Your task to perform on an android device: toggle wifi Image 0: 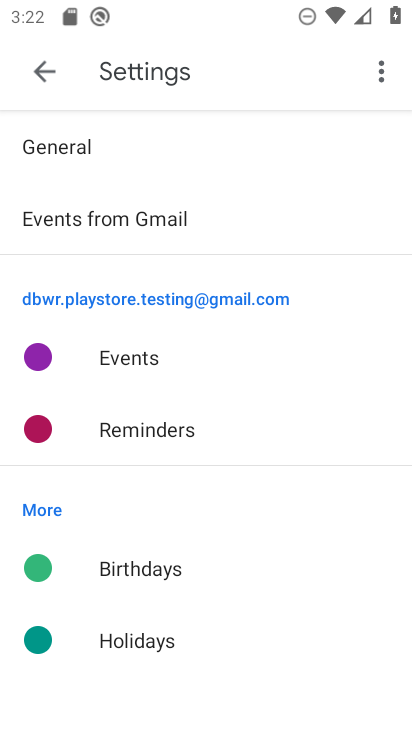
Step 0: press home button
Your task to perform on an android device: toggle wifi Image 1: 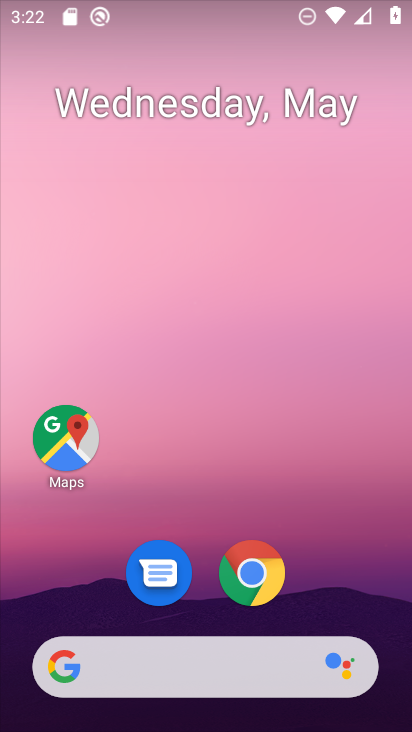
Step 1: drag from (309, 588) to (312, 1)
Your task to perform on an android device: toggle wifi Image 2: 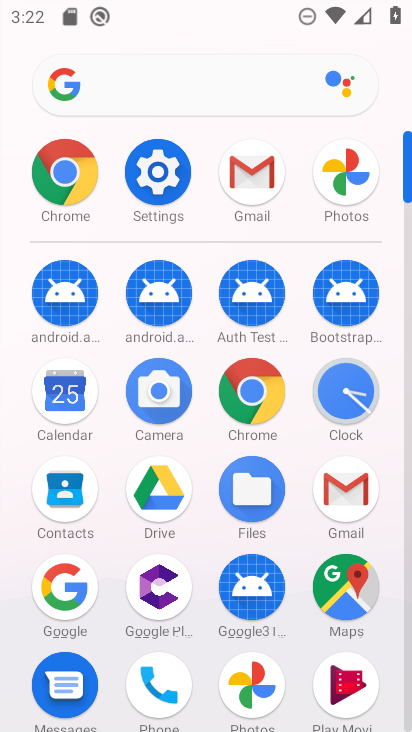
Step 2: click (146, 173)
Your task to perform on an android device: toggle wifi Image 3: 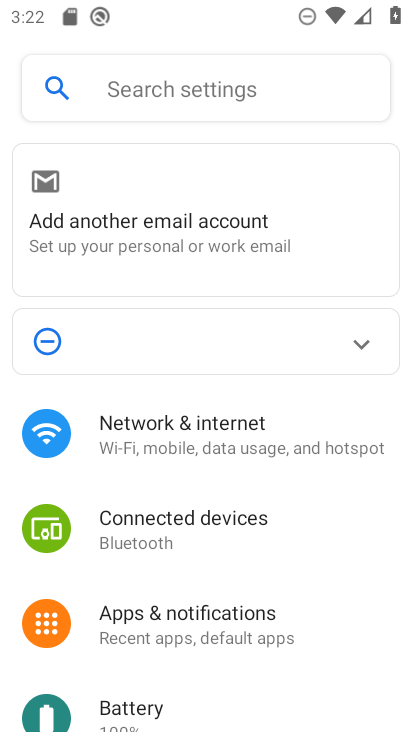
Step 3: click (156, 437)
Your task to perform on an android device: toggle wifi Image 4: 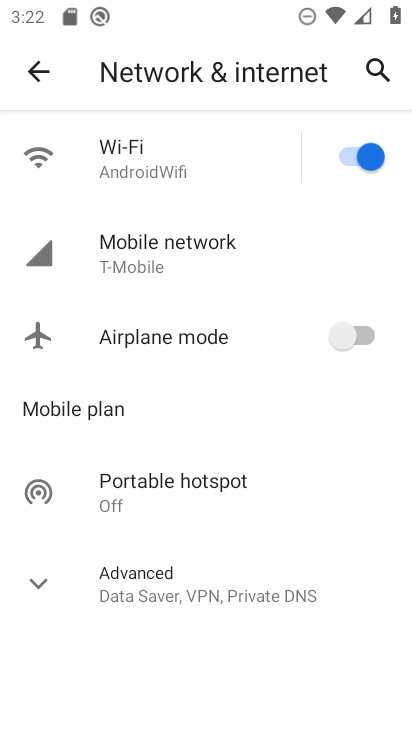
Step 4: click (348, 158)
Your task to perform on an android device: toggle wifi Image 5: 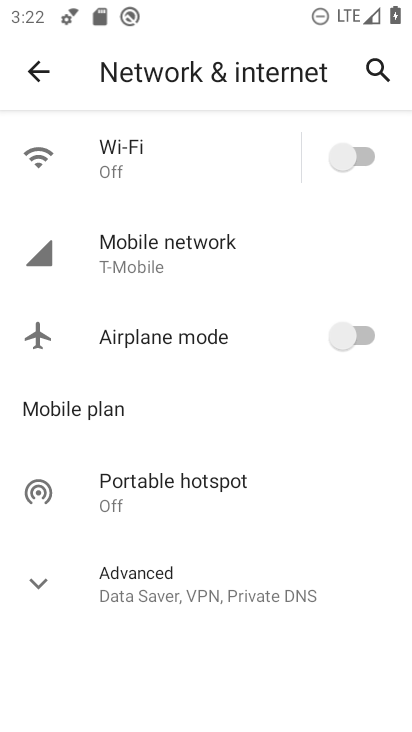
Step 5: task complete